Your task to perform on an android device: change notifications settings Image 0: 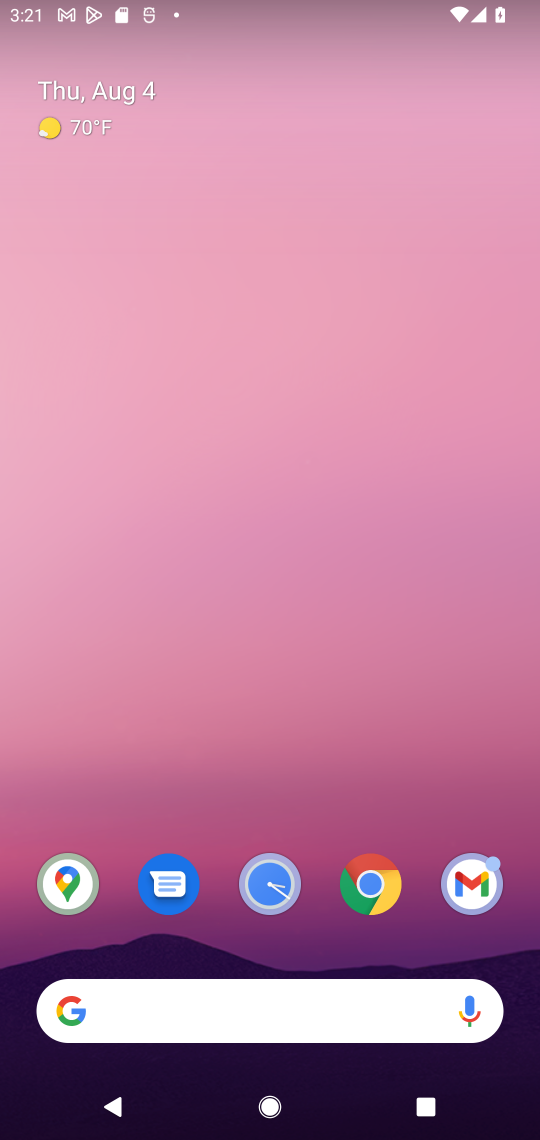
Step 0: task complete